Your task to perform on an android device: move an email to a new category in the gmail app Image 0: 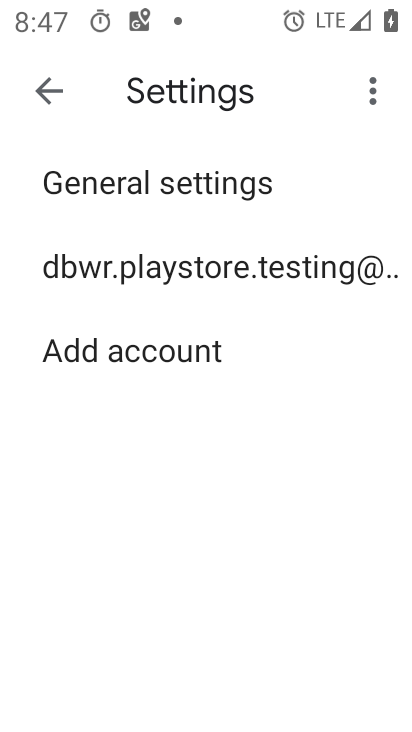
Step 0: press home button
Your task to perform on an android device: move an email to a new category in the gmail app Image 1: 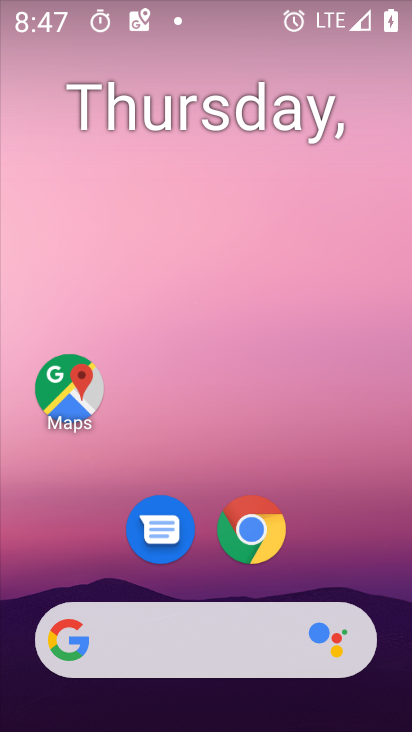
Step 1: drag from (368, 539) to (377, 164)
Your task to perform on an android device: move an email to a new category in the gmail app Image 2: 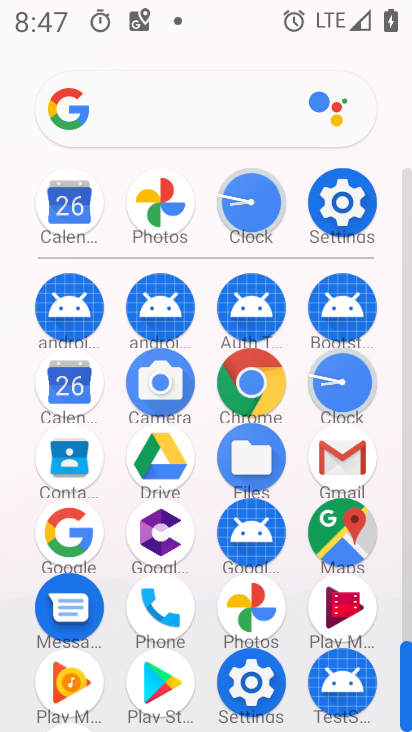
Step 2: click (367, 460)
Your task to perform on an android device: move an email to a new category in the gmail app Image 3: 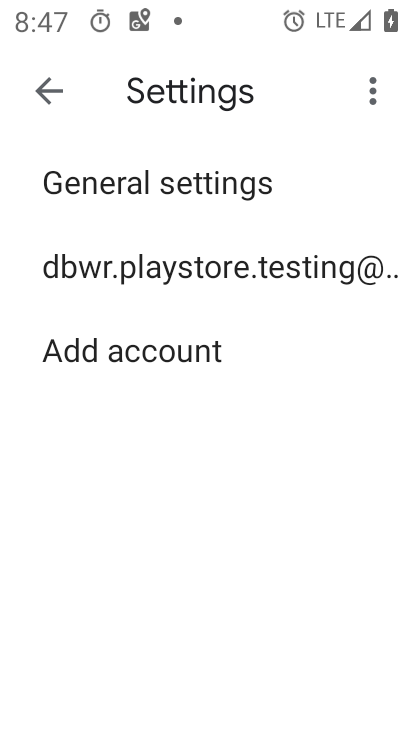
Step 3: click (54, 102)
Your task to perform on an android device: move an email to a new category in the gmail app Image 4: 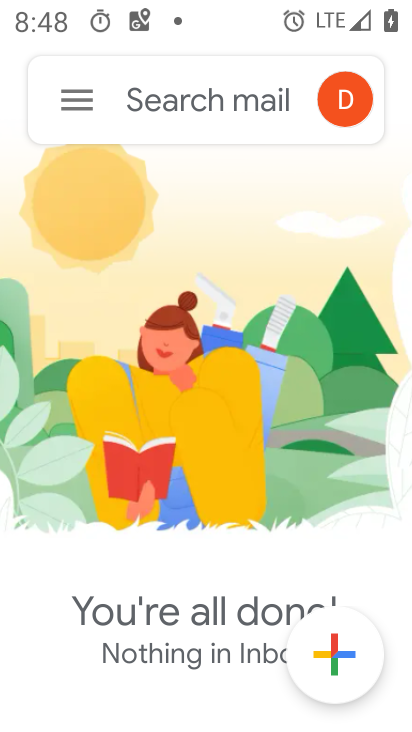
Step 4: task complete